Your task to perform on an android device: open chrome privacy settings Image 0: 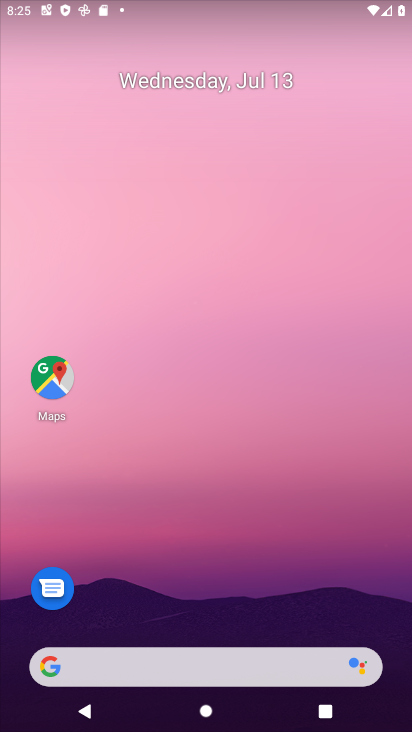
Step 0: click (237, 10)
Your task to perform on an android device: open chrome privacy settings Image 1: 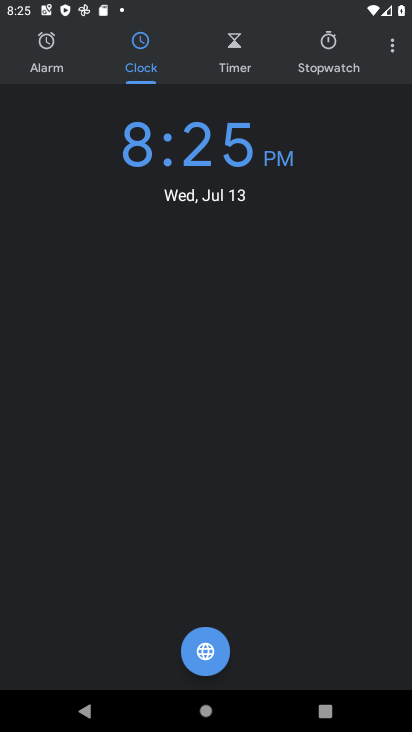
Step 1: press home button
Your task to perform on an android device: open chrome privacy settings Image 2: 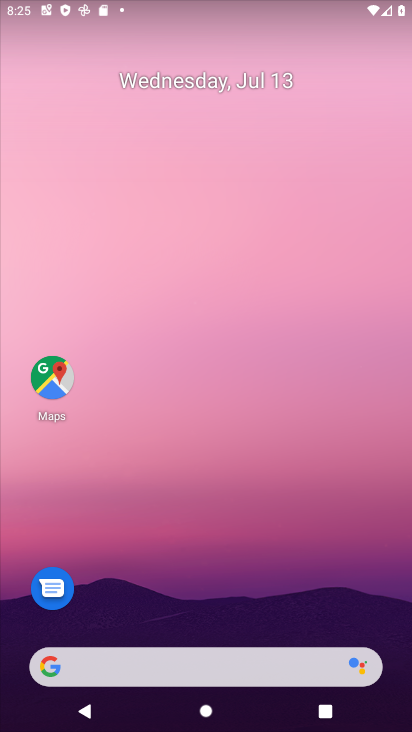
Step 2: drag from (154, 692) to (214, 4)
Your task to perform on an android device: open chrome privacy settings Image 3: 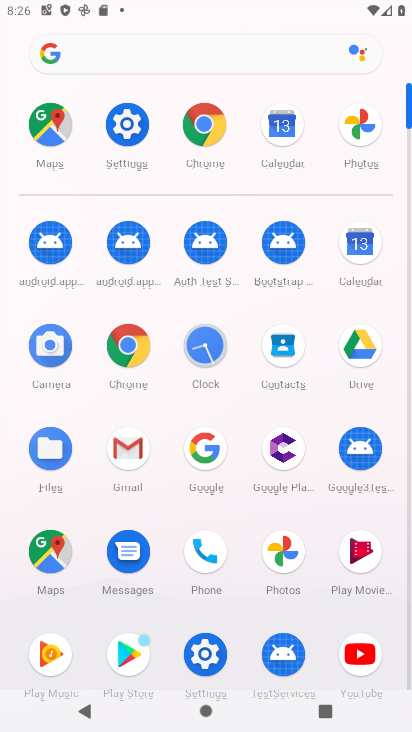
Step 3: click (143, 132)
Your task to perform on an android device: open chrome privacy settings Image 4: 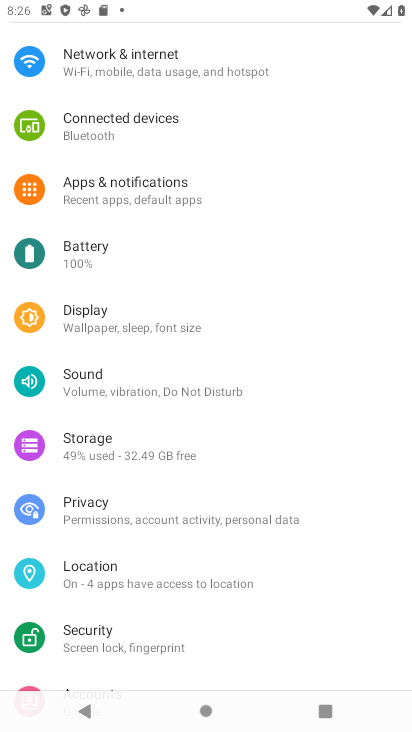
Step 4: click (157, 507)
Your task to perform on an android device: open chrome privacy settings Image 5: 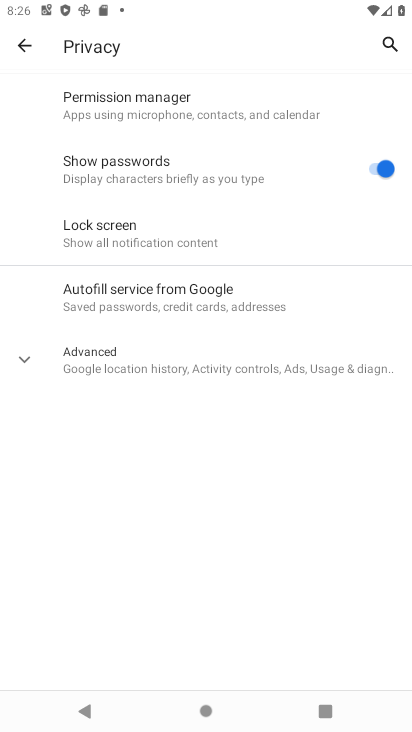
Step 5: task complete